Your task to perform on an android device: open chrome privacy settings Image 0: 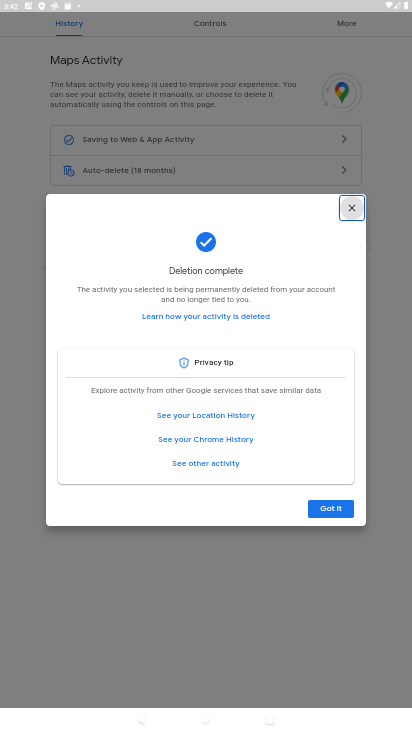
Step 0: press home button
Your task to perform on an android device: open chrome privacy settings Image 1: 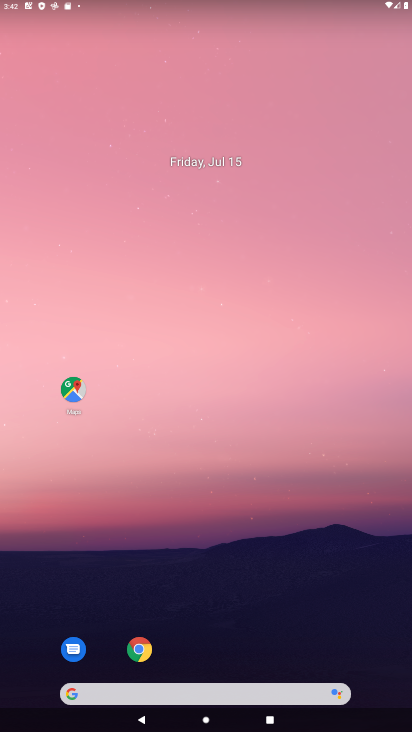
Step 1: drag from (321, 549) to (182, 148)
Your task to perform on an android device: open chrome privacy settings Image 2: 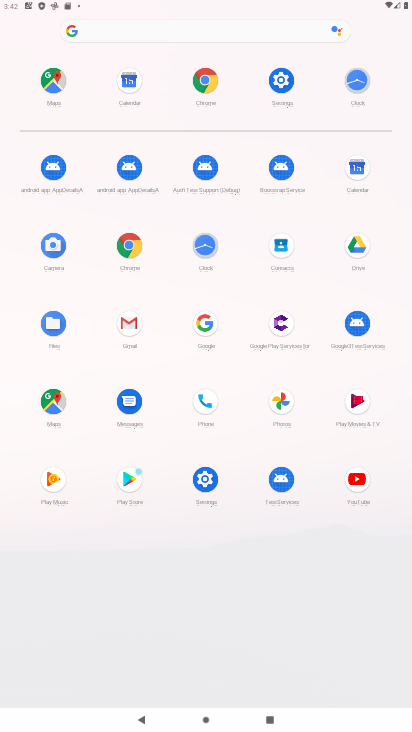
Step 2: click (201, 76)
Your task to perform on an android device: open chrome privacy settings Image 3: 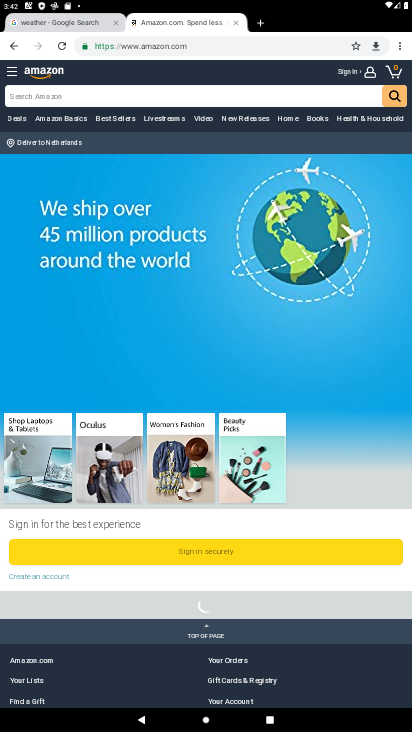
Step 3: drag from (394, 40) to (315, 302)
Your task to perform on an android device: open chrome privacy settings Image 4: 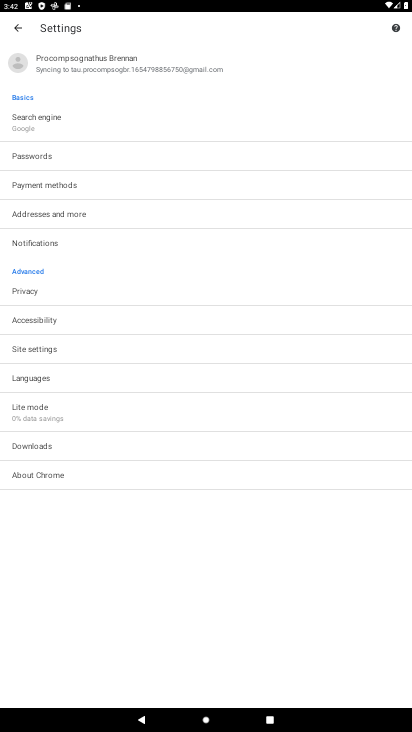
Step 4: click (38, 298)
Your task to perform on an android device: open chrome privacy settings Image 5: 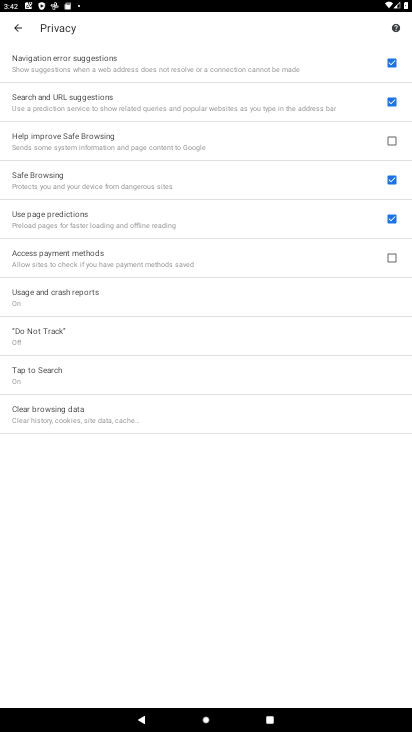
Step 5: task complete